Your task to perform on an android device: move an email to a new category in the gmail app Image 0: 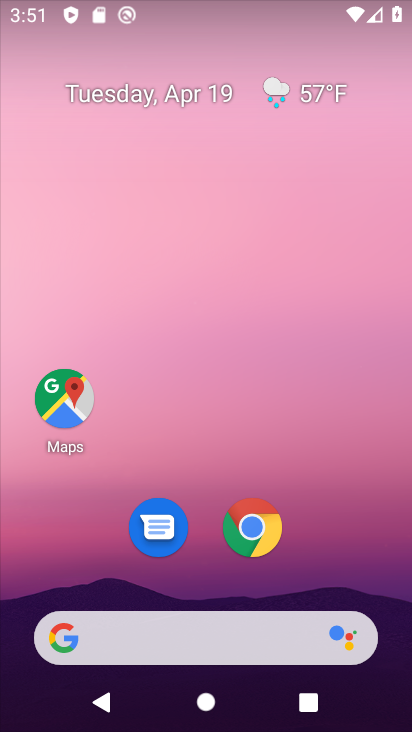
Step 0: drag from (335, 559) to (281, 34)
Your task to perform on an android device: move an email to a new category in the gmail app Image 1: 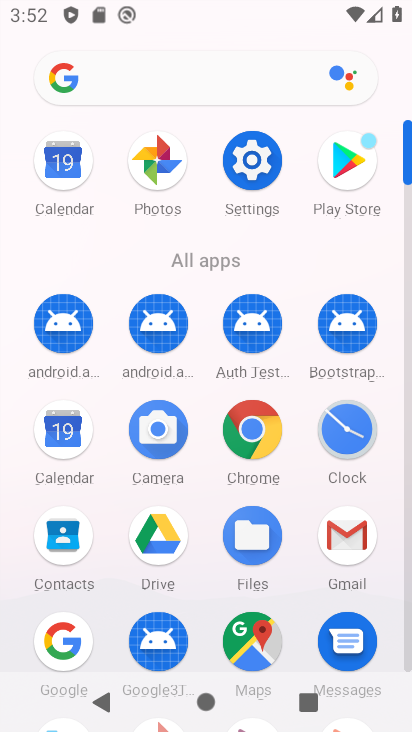
Step 1: click (405, 653)
Your task to perform on an android device: move an email to a new category in the gmail app Image 2: 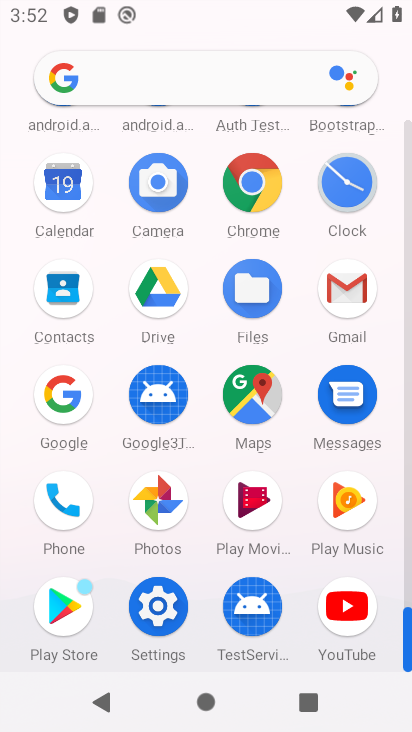
Step 2: click (342, 285)
Your task to perform on an android device: move an email to a new category in the gmail app Image 3: 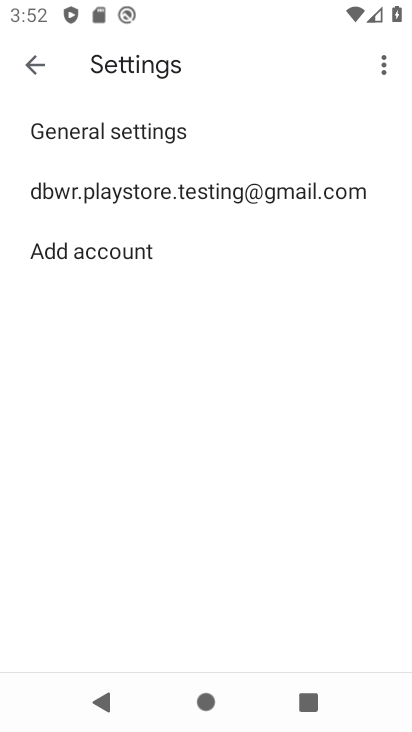
Step 3: press back button
Your task to perform on an android device: move an email to a new category in the gmail app Image 4: 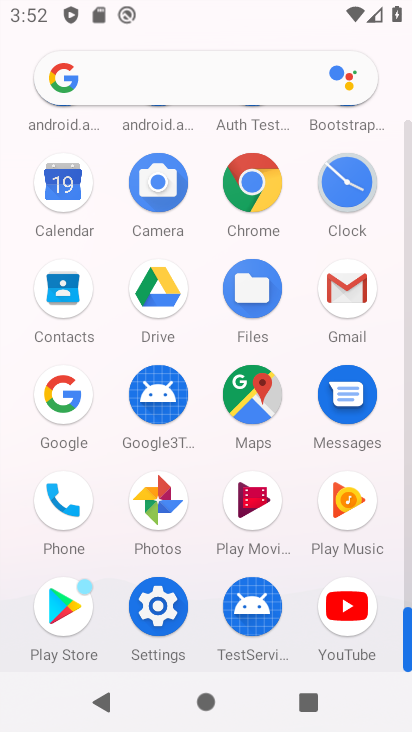
Step 4: click (343, 288)
Your task to perform on an android device: move an email to a new category in the gmail app Image 5: 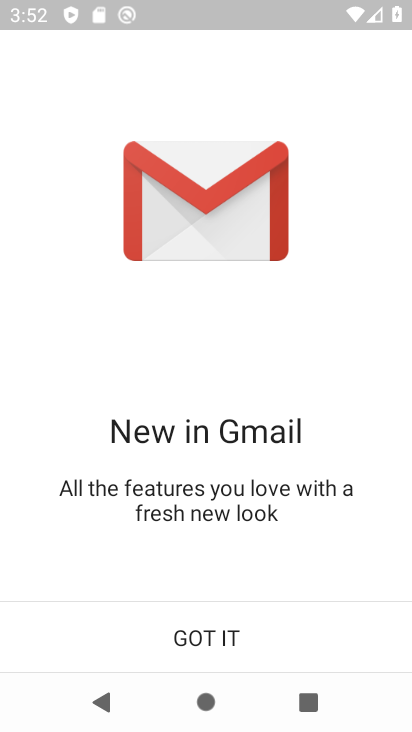
Step 5: click (187, 642)
Your task to perform on an android device: move an email to a new category in the gmail app Image 6: 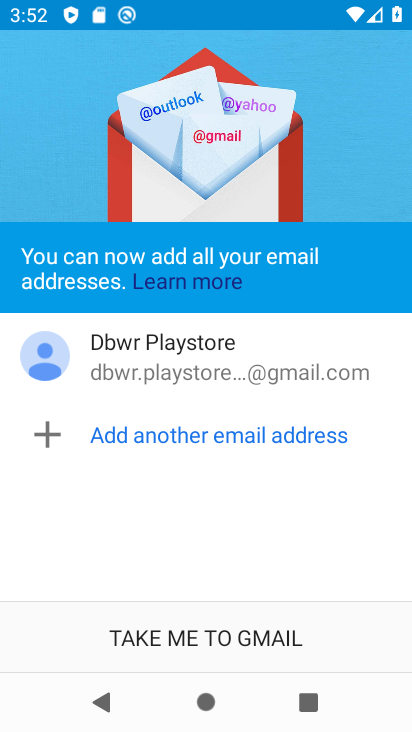
Step 6: click (183, 626)
Your task to perform on an android device: move an email to a new category in the gmail app Image 7: 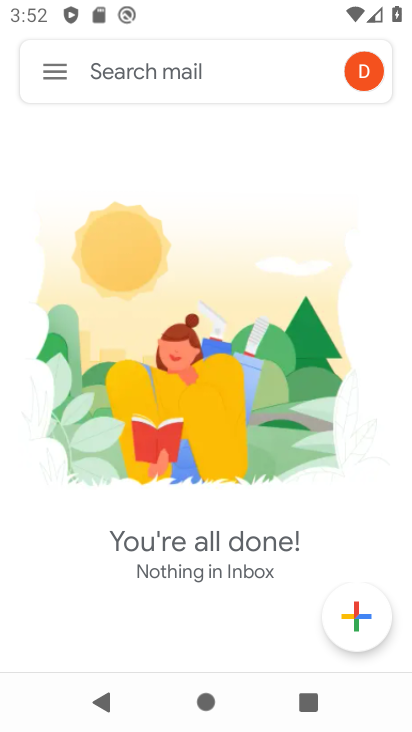
Step 7: click (53, 68)
Your task to perform on an android device: move an email to a new category in the gmail app Image 8: 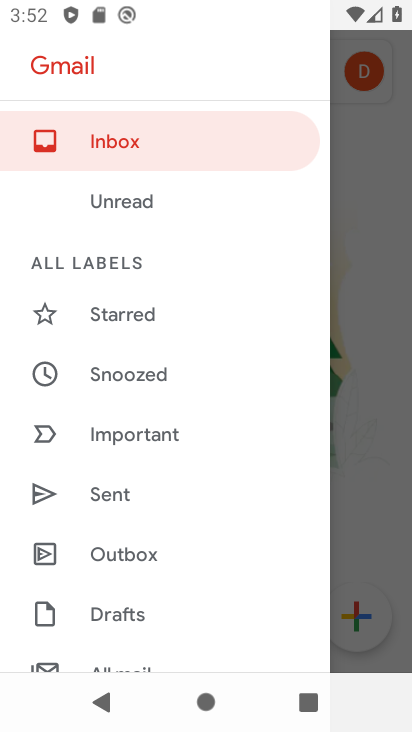
Step 8: drag from (147, 612) to (169, 246)
Your task to perform on an android device: move an email to a new category in the gmail app Image 9: 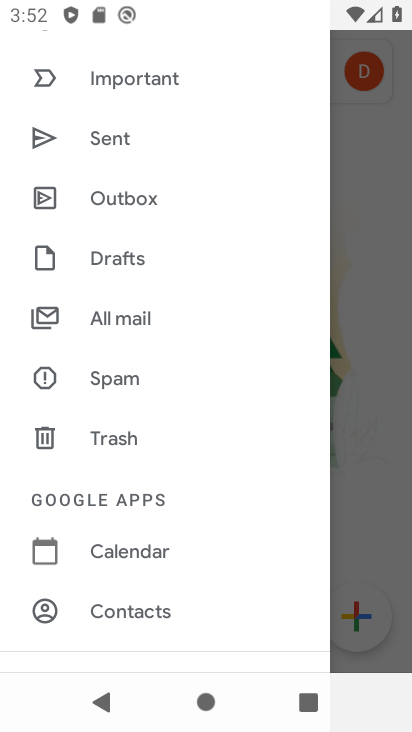
Step 9: drag from (198, 549) to (194, 238)
Your task to perform on an android device: move an email to a new category in the gmail app Image 10: 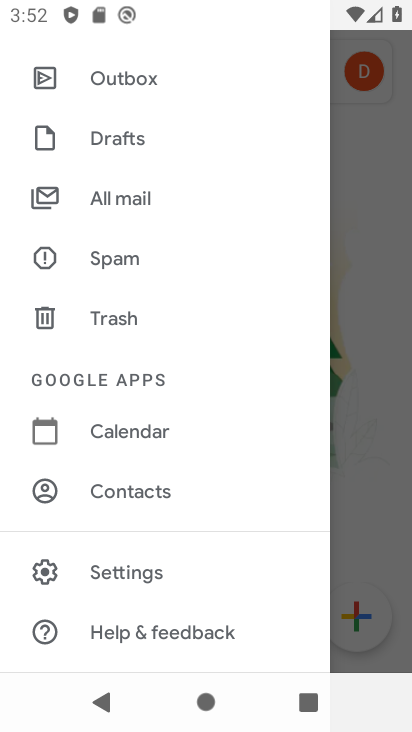
Step 10: click (110, 570)
Your task to perform on an android device: move an email to a new category in the gmail app Image 11: 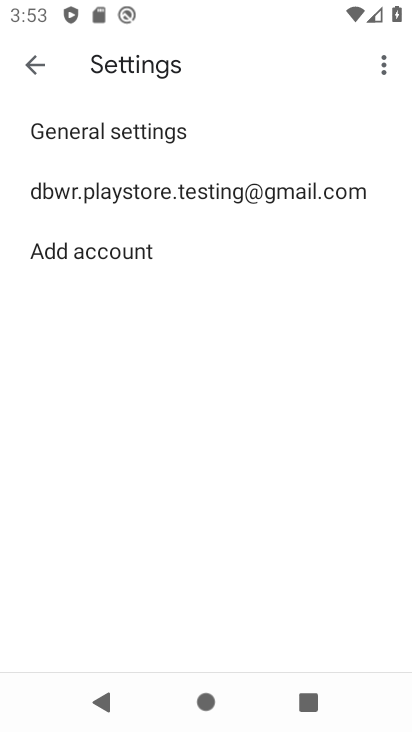
Step 11: press home button
Your task to perform on an android device: move an email to a new category in the gmail app Image 12: 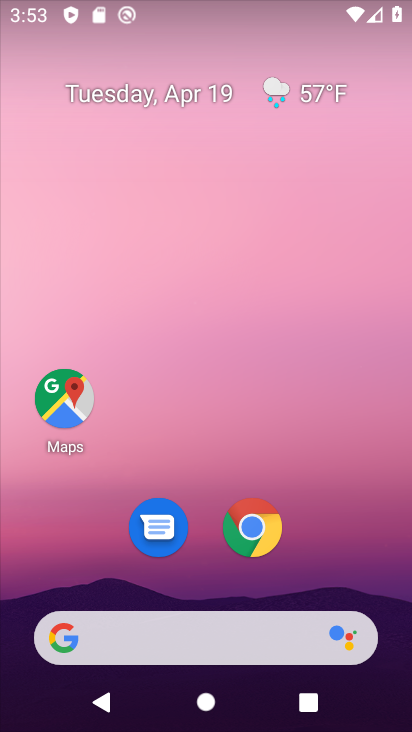
Step 12: drag from (334, 525) to (365, 0)
Your task to perform on an android device: move an email to a new category in the gmail app Image 13: 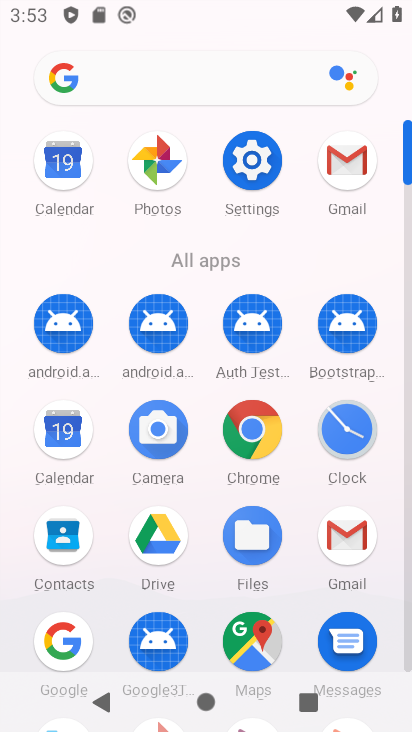
Step 13: click (406, 647)
Your task to perform on an android device: move an email to a new category in the gmail app Image 14: 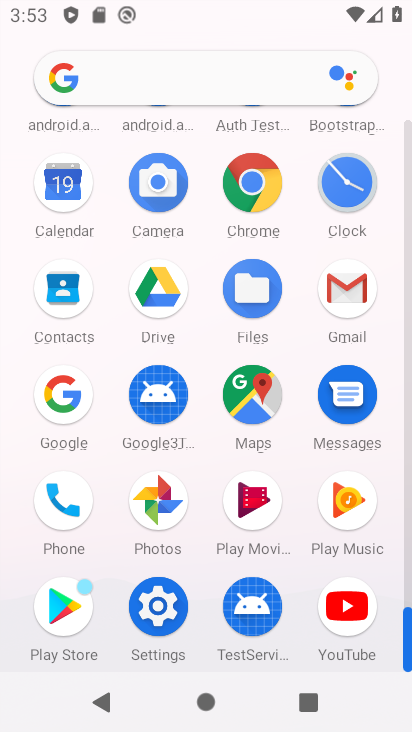
Step 14: click (339, 281)
Your task to perform on an android device: move an email to a new category in the gmail app Image 15: 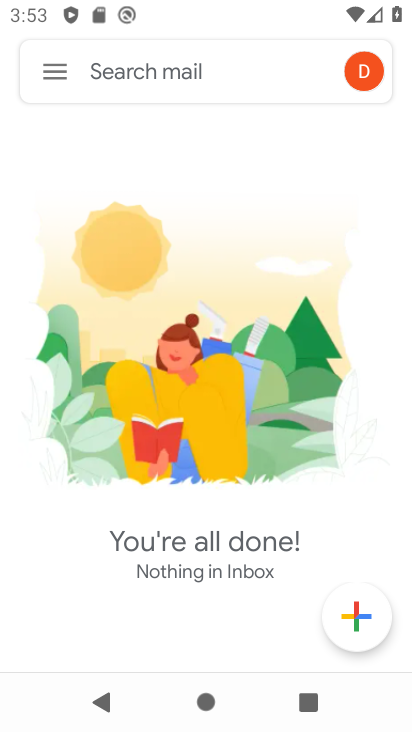
Step 15: click (49, 68)
Your task to perform on an android device: move an email to a new category in the gmail app Image 16: 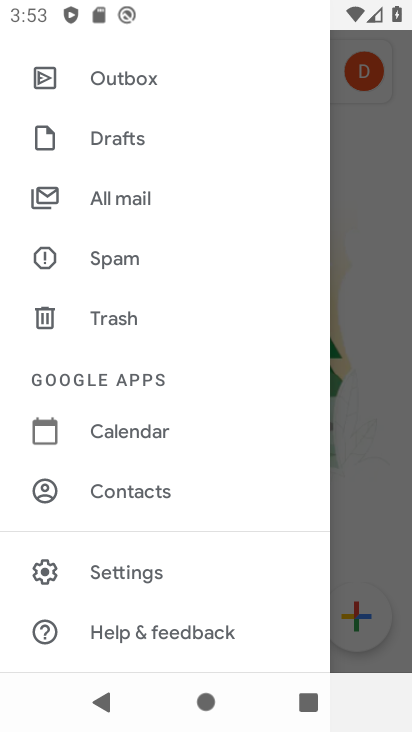
Step 16: click (113, 195)
Your task to perform on an android device: move an email to a new category in the gmail app Image 17: 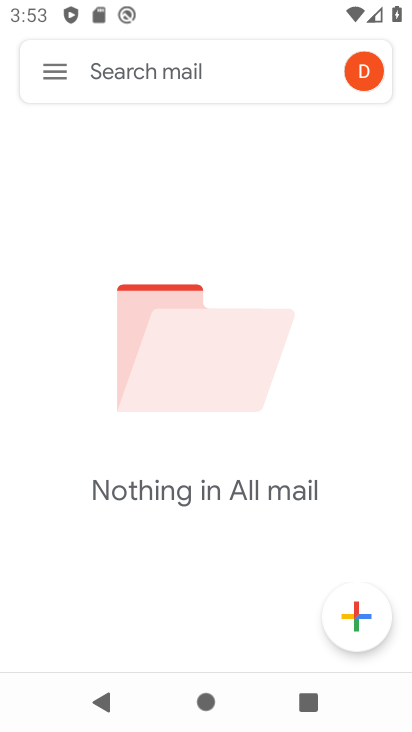
Step 17: task complete